Your task to perform on an android device: check battery use Image 0: 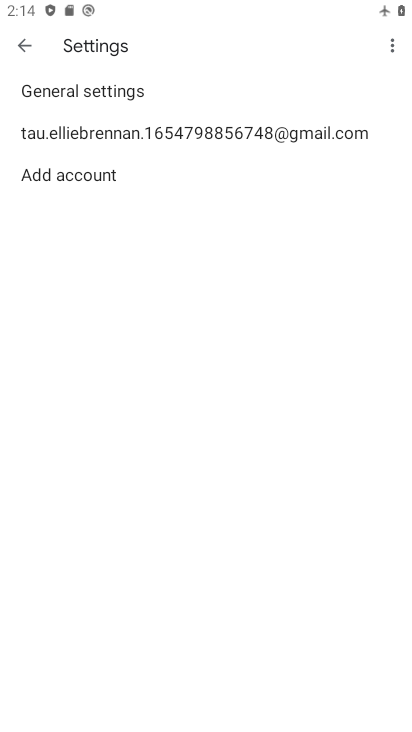
Step 0: press home button
Your task to perform on an android device: check battery use Image 1: 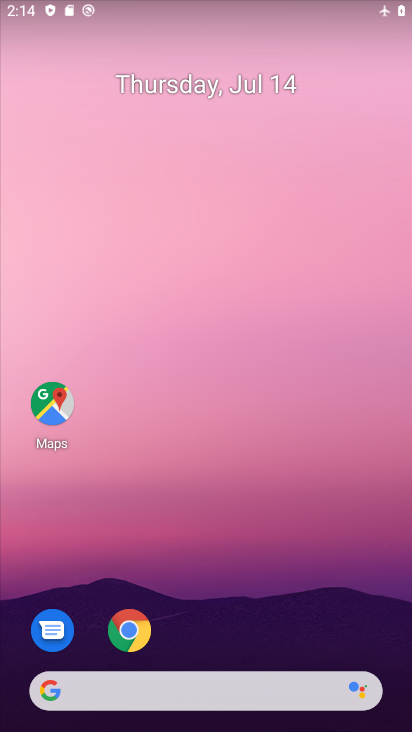
Step 1: drag from (223, 600) to (261, 179)
Your task to perform on an android device: check battery use Image 2: 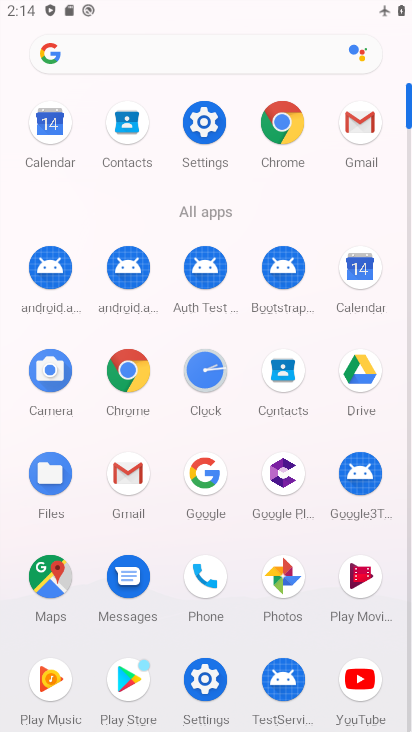
Step 2: click (196, 124)
Your task to perform on an android device: check battery use Image 3: 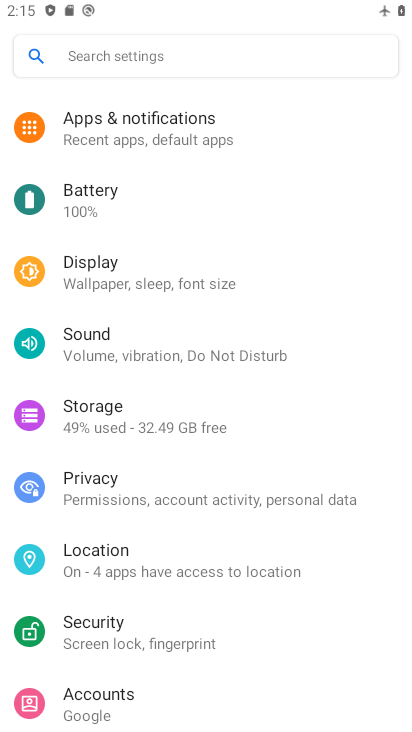
Step 3: click (117, 209)
Your task to perform on an android device: check battery use Image 4: 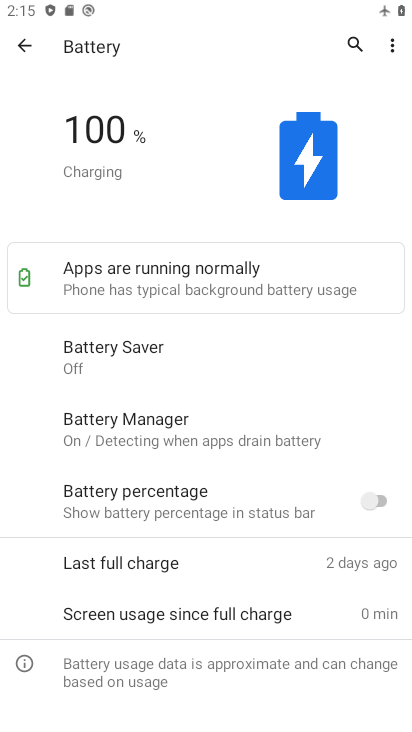
Step 4: click (397, 46)
Your task to perform on an android device: check battery use Image 5: 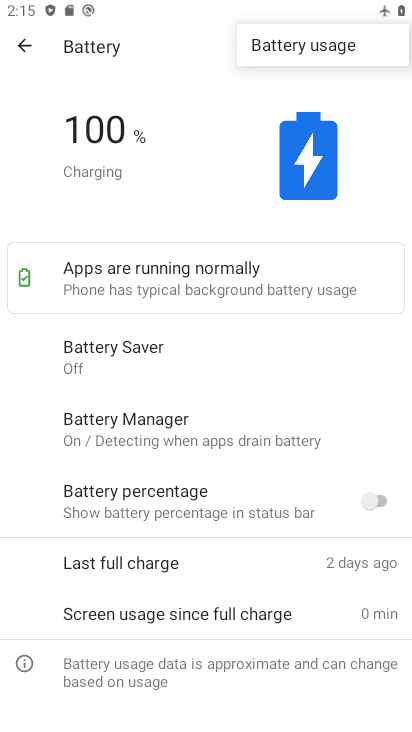
Step 5: click (330, 49)
Your task to perform on an android device: check battery use Image 6: 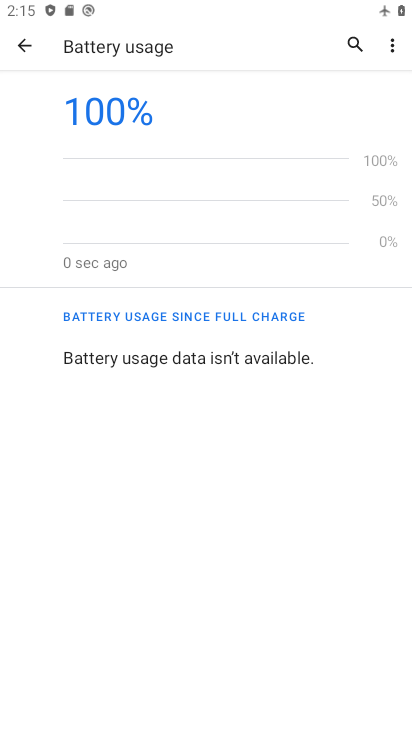
Step 6: task complete